Your task to perform on an android device: toggle notifications settings in the gmail app Image 0: 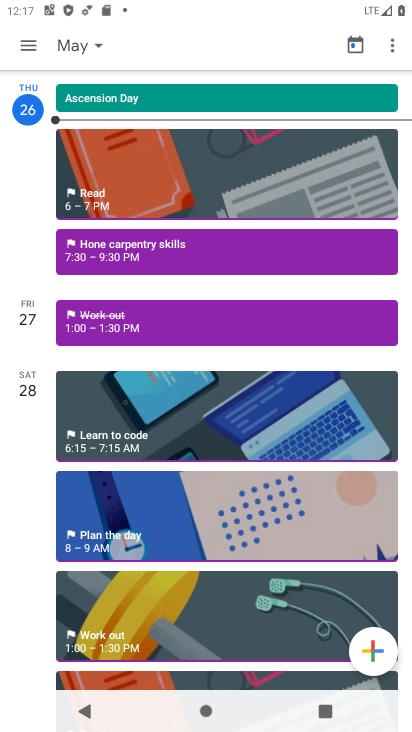
Step 0: press home button
Your task to perform on an android device: toggle notifications settings in the gmail app Image 1: 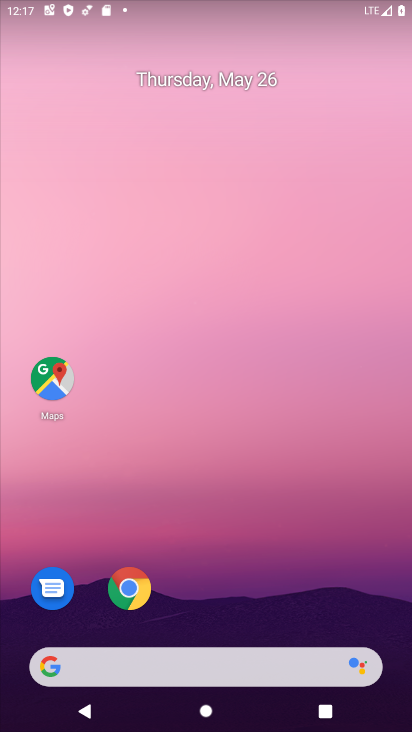
Step 1: drag from (285, 541) to (228, 35)
Your task to perform on an android device: toggle notifications settings in the gmail app Image 2: 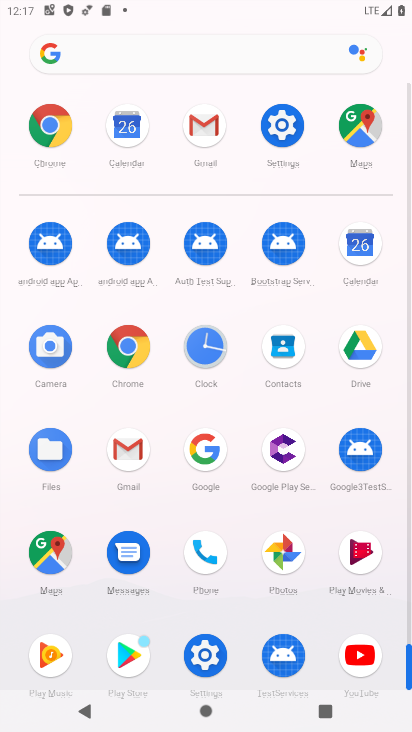
Step 2: click (121, 447)
Your task to perform on an android device: toggle notifications settings in the gmail app Image 3: 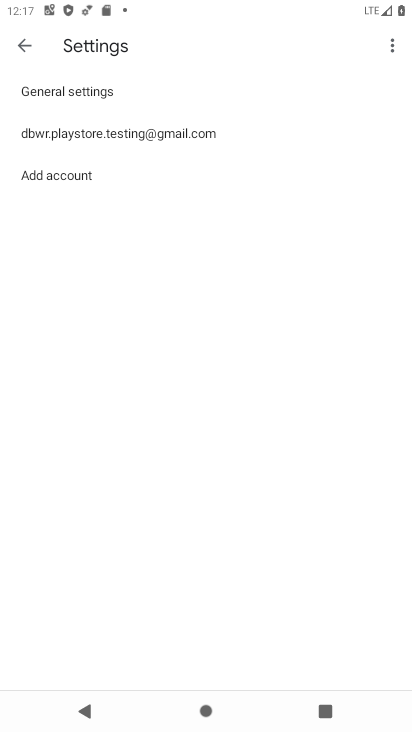
Step 3: click (32, 49)
Your task to perform on an android device: toggle notifications settings in the gmail app Image 4: 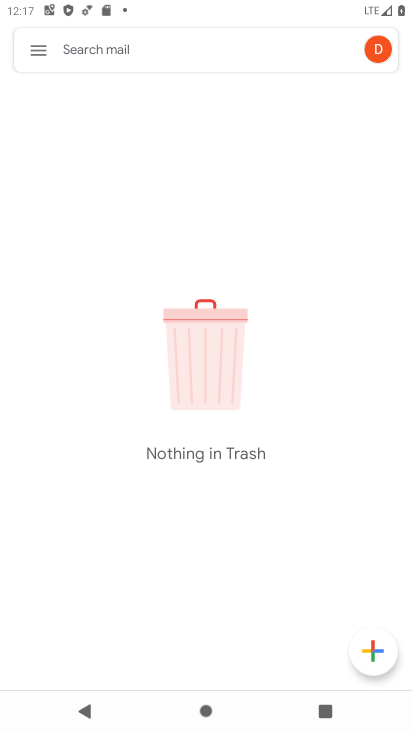
Step 4: click (33, 44)
Your task to perform on an android device: toggle notifications settings in the gmail app Image 5: 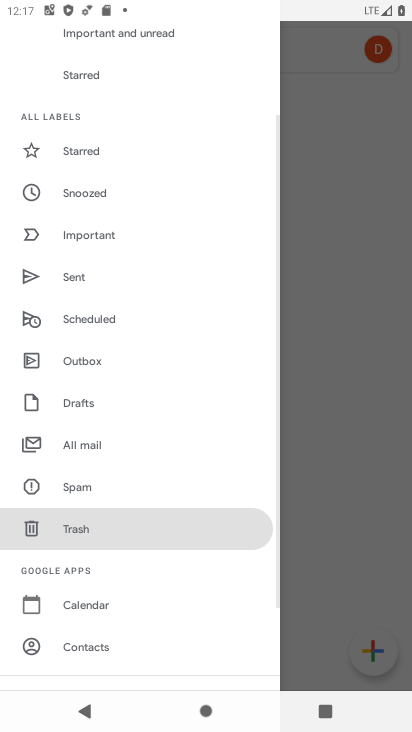
Step 5: drag from (133, 617) to (158, 214)
Your task to perform on an android device: toggle notifications settings in the gmail app Image 6: 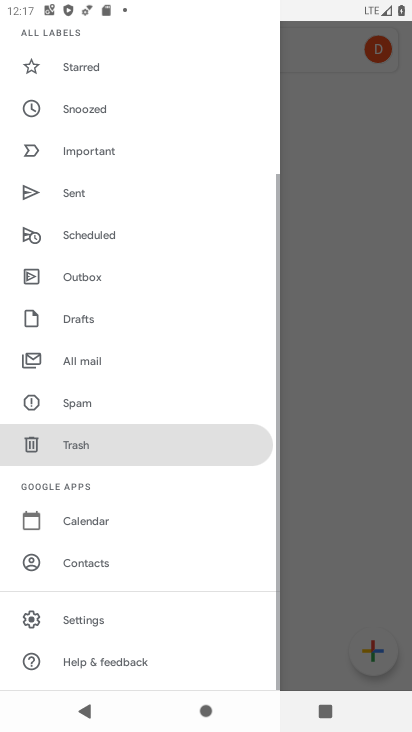
Step 6: click (90, 625)
Your task to perform on an android device: toggle notifications settings in the gmail app Image 7: 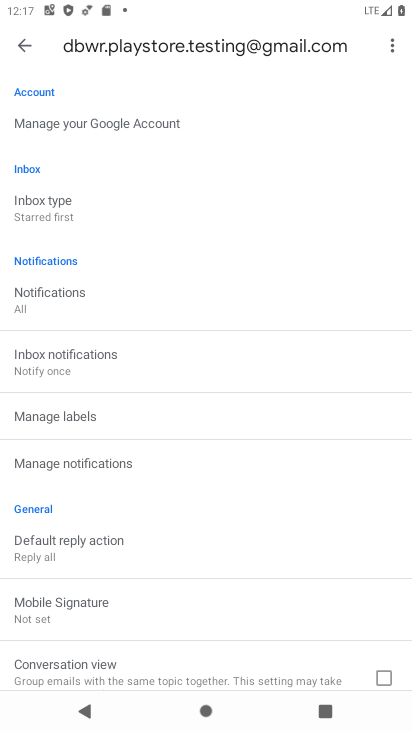
Step 7: click (141, 464)
Your task to perform on an android device: toggle notifications settings in the gmail app Image 8: 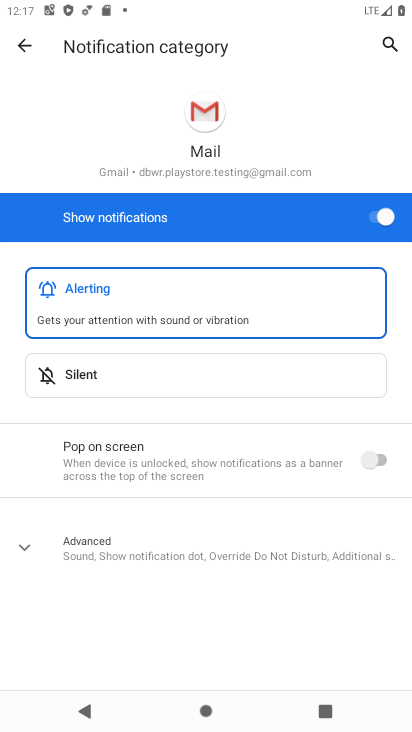
Step 8: click (370, 213)
Your task to perform on an android device: toggle notifications settings in the gmail app Image 9: 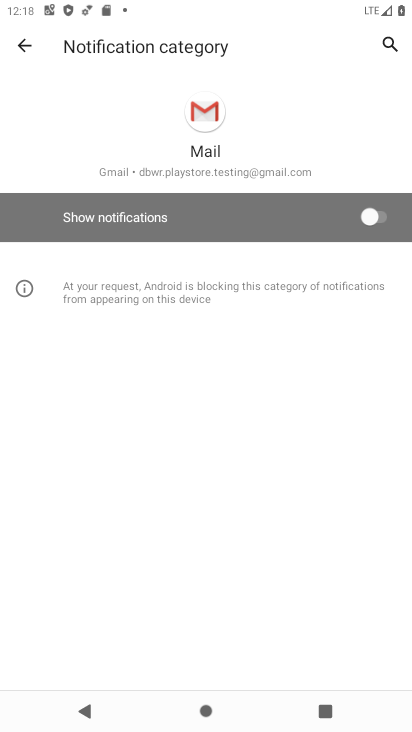
Step 9: task complete